Your task to perform on an android device: turn notification dots off Image 0: 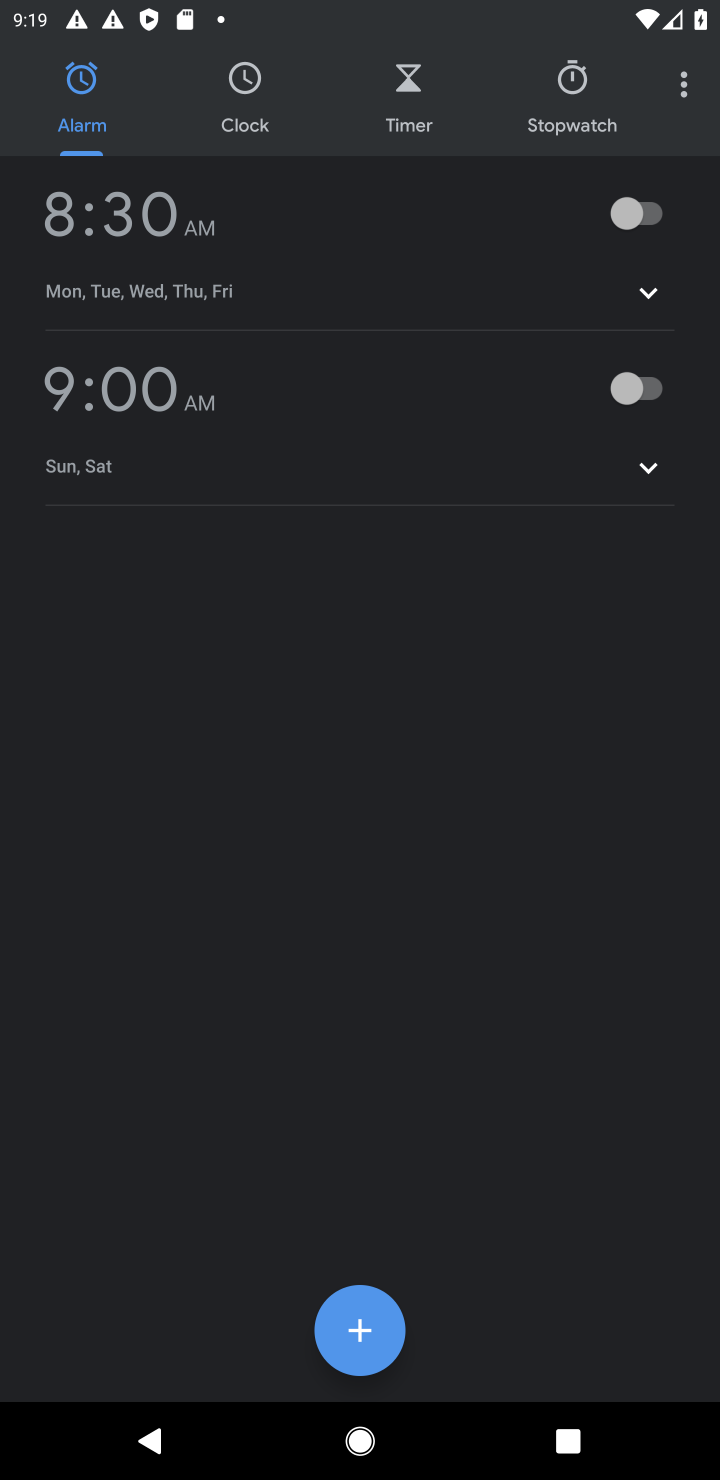
Step 0: press home button
Your task to perform on an android device: turn notification dots off Image 1: 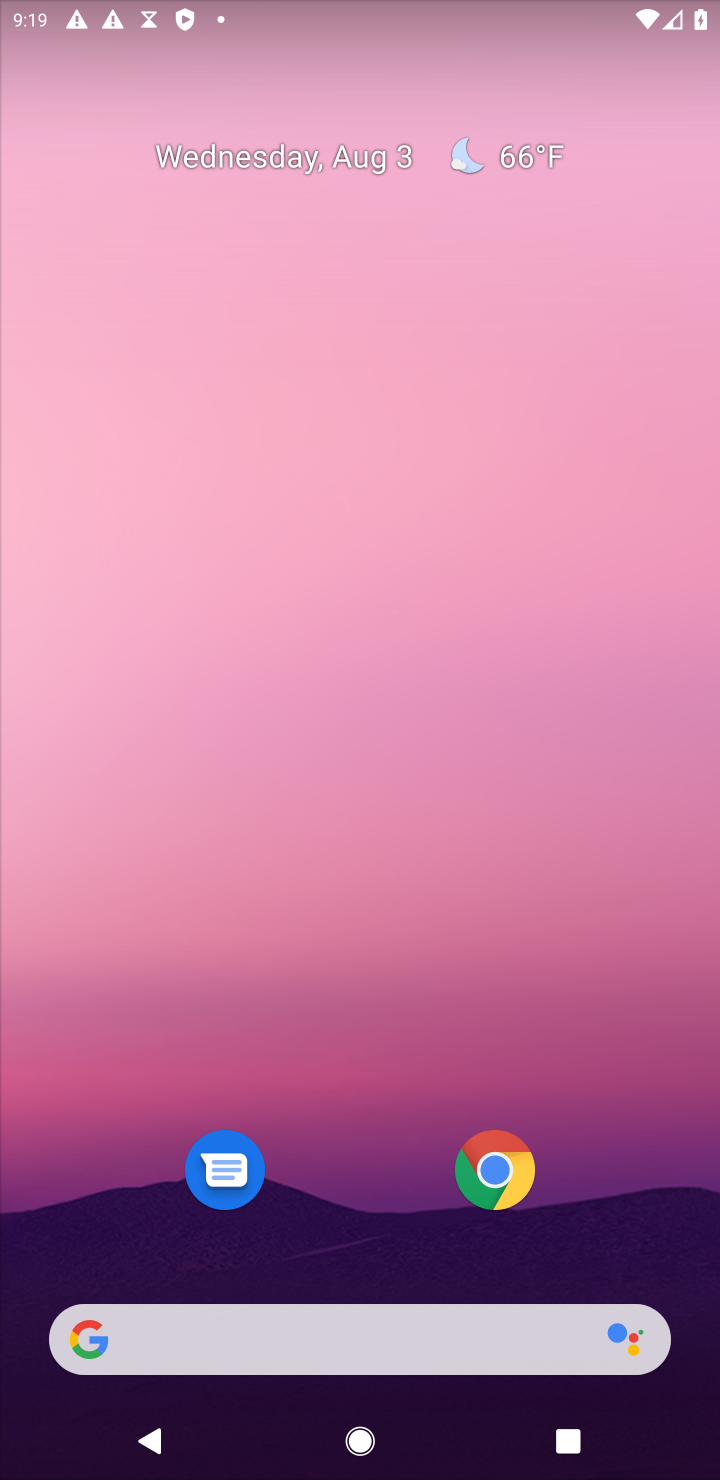
Step 1: drag from (661, 1237) to (428, 61)
Your task to perform on an android device: turn notification dots off Image 2: 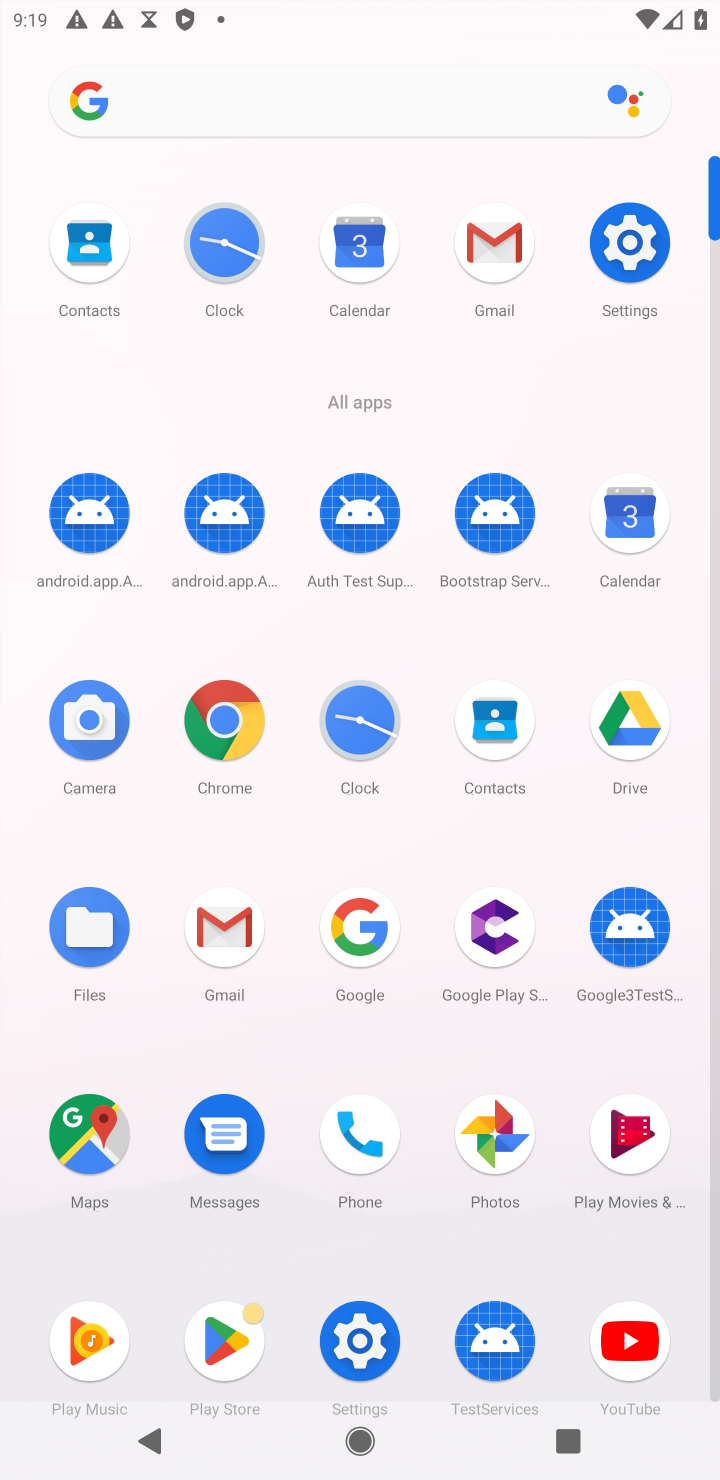
Step 2: click (624, 271)
Your task to perform on an android device: turn notification dots off Image 3: 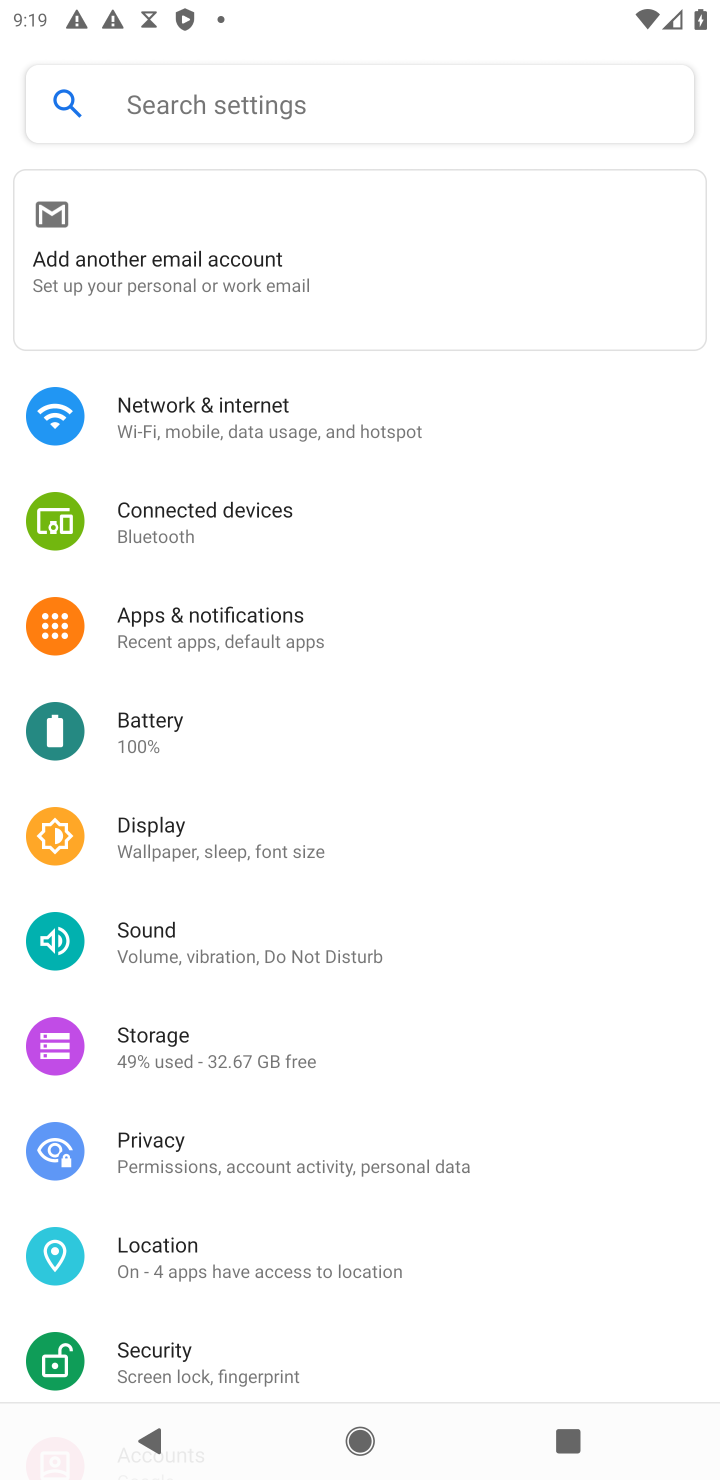
Step 3: click (349, 607)
Your task to perform on an android device: turn notification dots off Image 4: 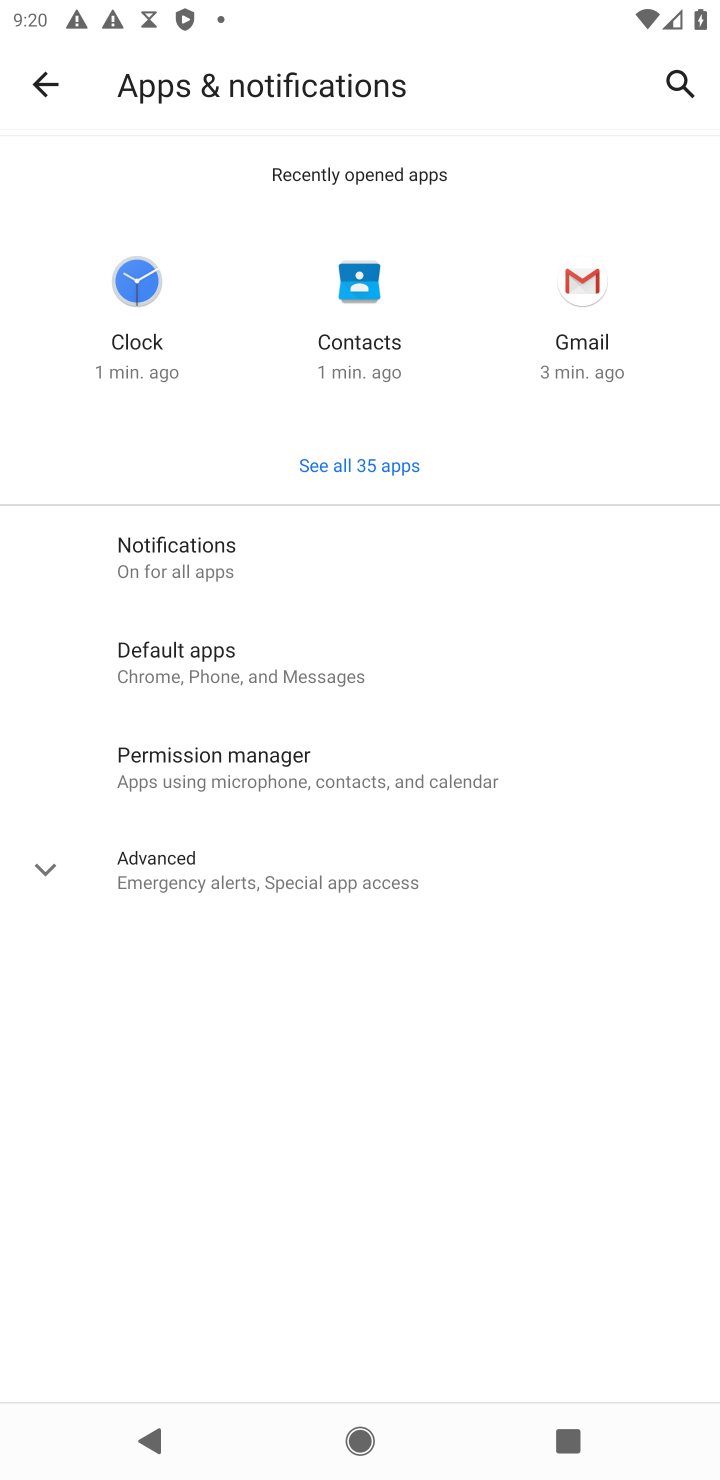
Step 4: click (344, 556)
Your task to perform on an android device: turn notification dots off Image 5: 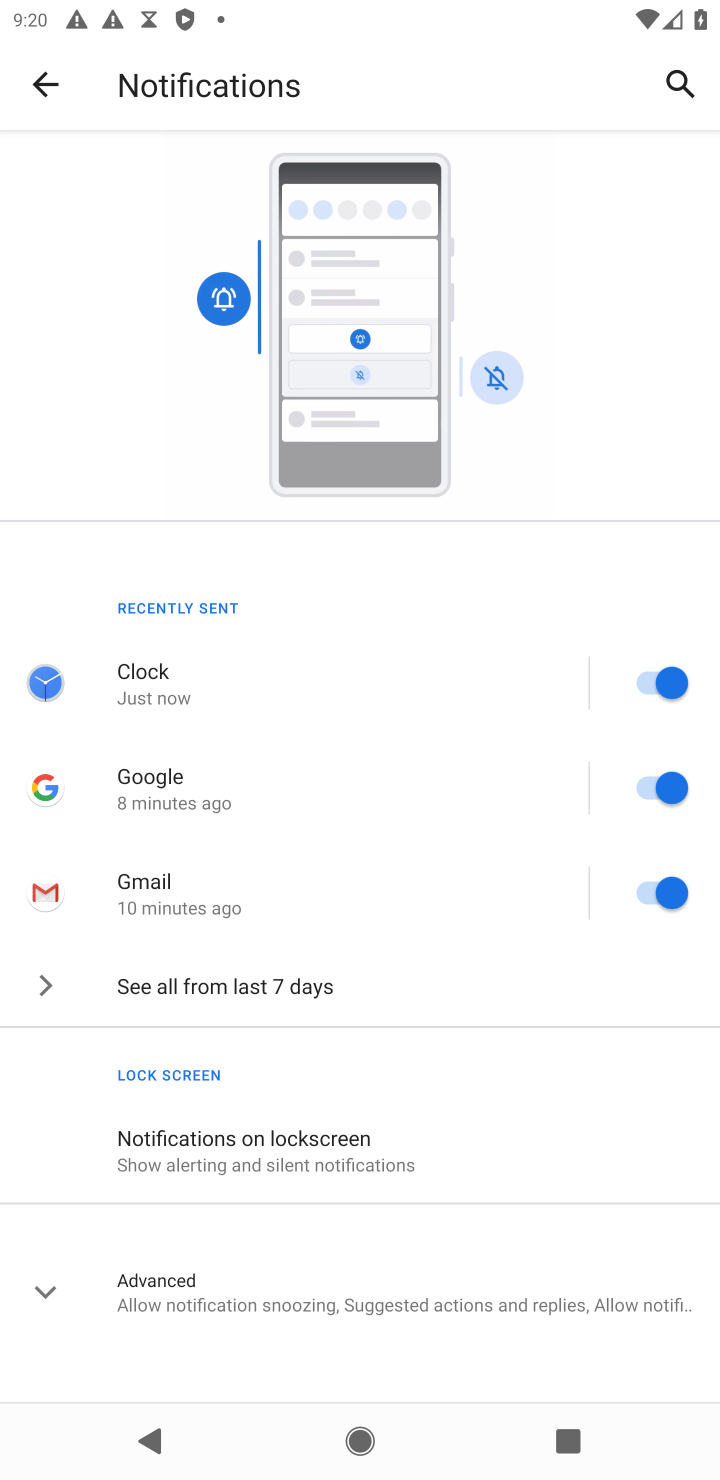
Step 5: click (332, 1280)
Your task to perform on an android device: turn notification dots off Image 6: 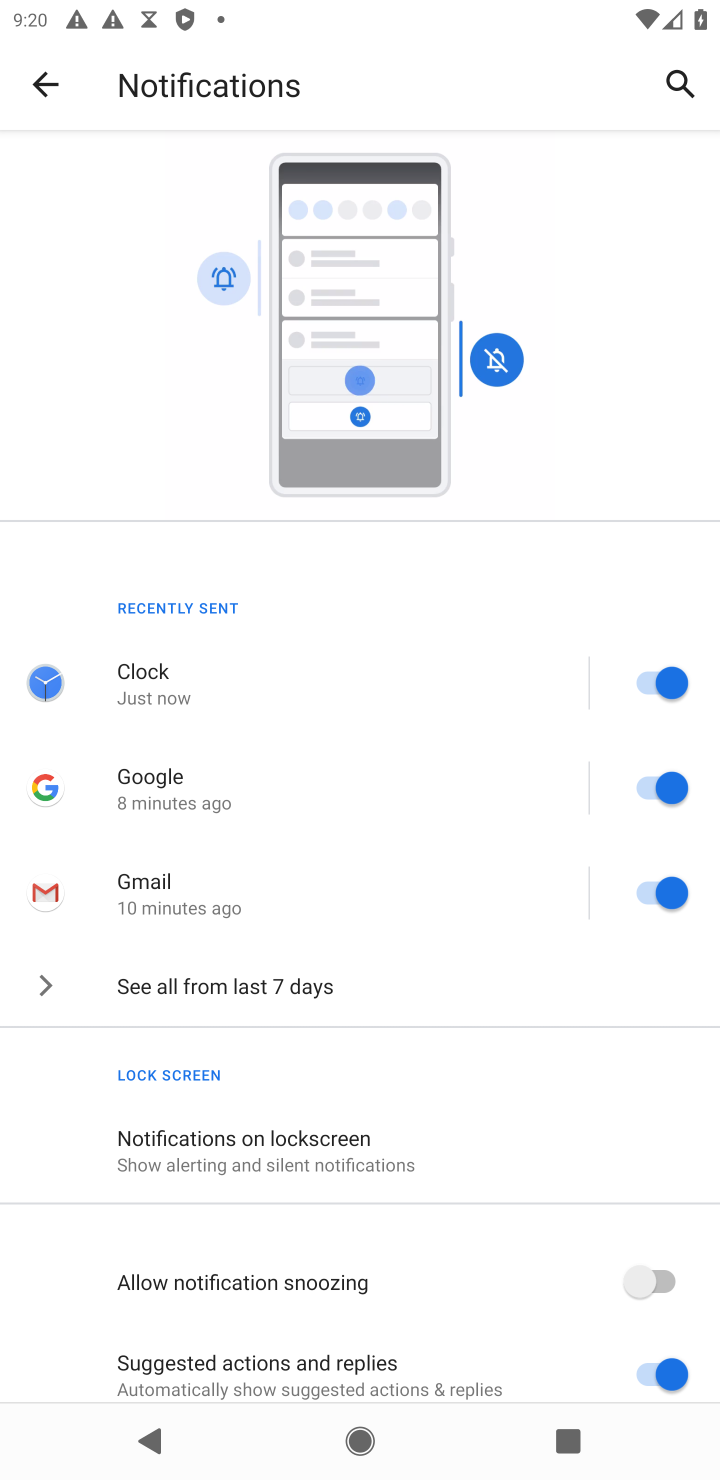
Step 6: drag from (378, 1195) to (389, 744)
Your task to perform on an android device: turn notification dots off Image 7: 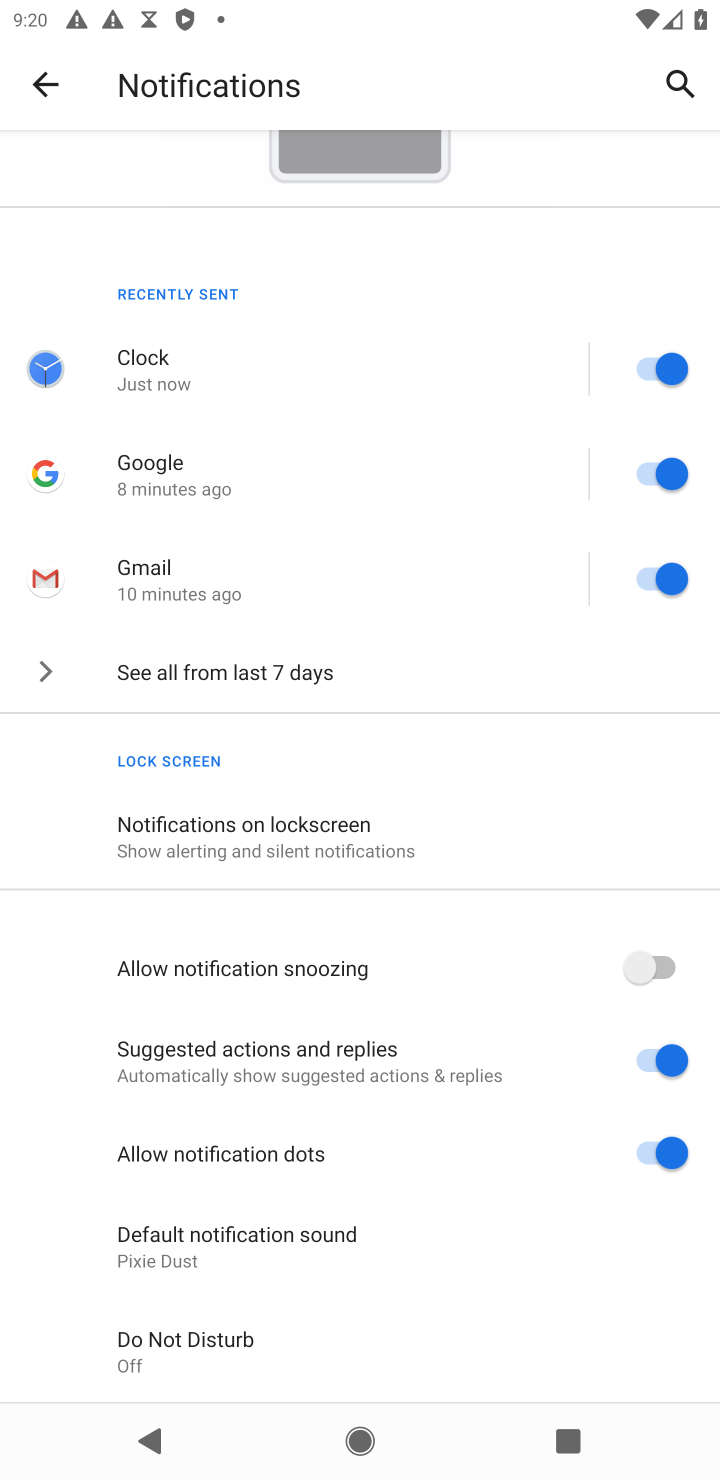
Step 7: click (657, 1133)
Your task to perform on an android device: turn notification dots off Image 8: 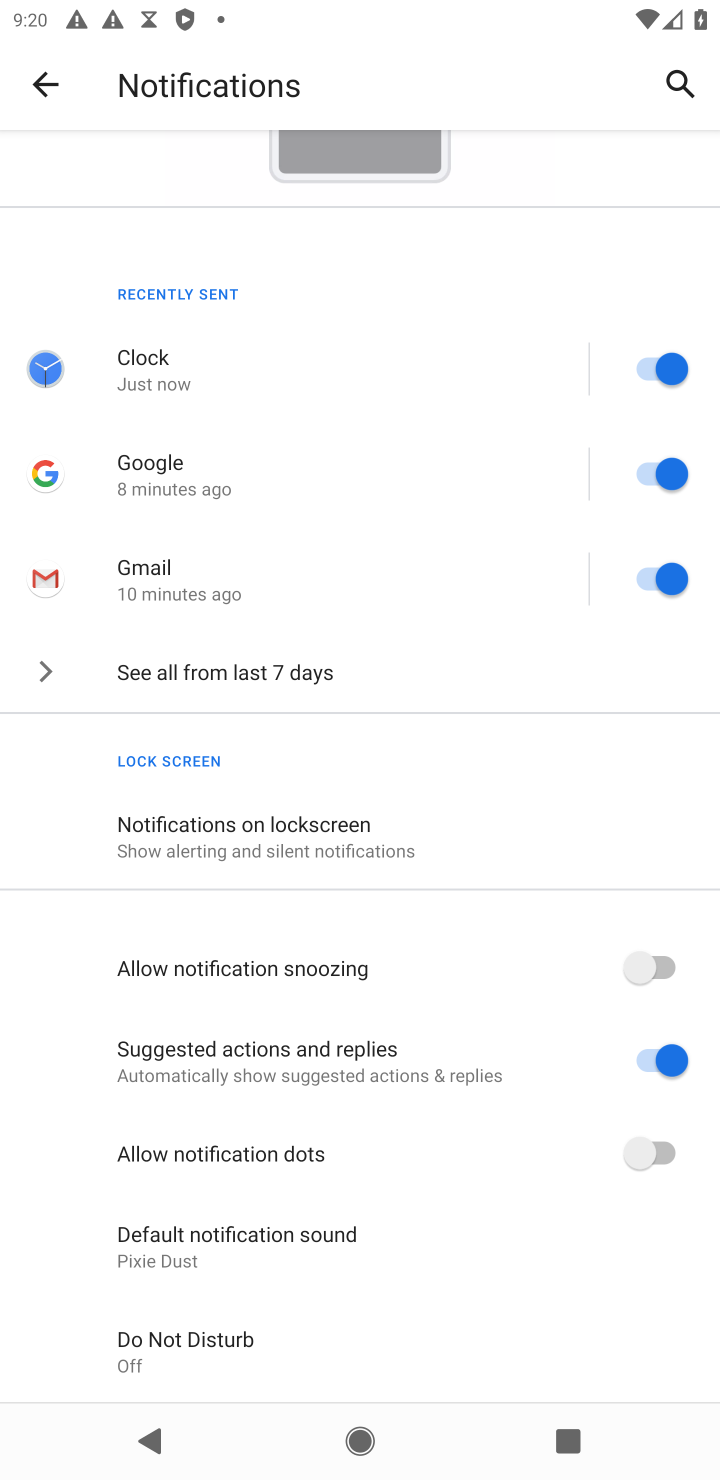
Step 8: task complete